Your task to perform on an android device: Open wifi settings Image 0: 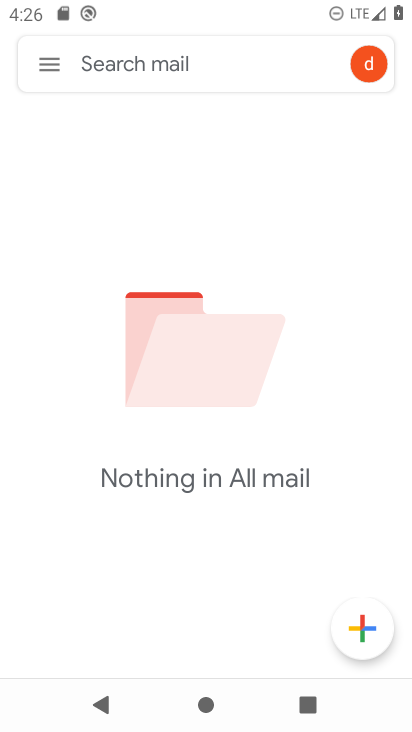
Step 0: press home button
Your task to perform on an android device: Open wifi settings Image 1: 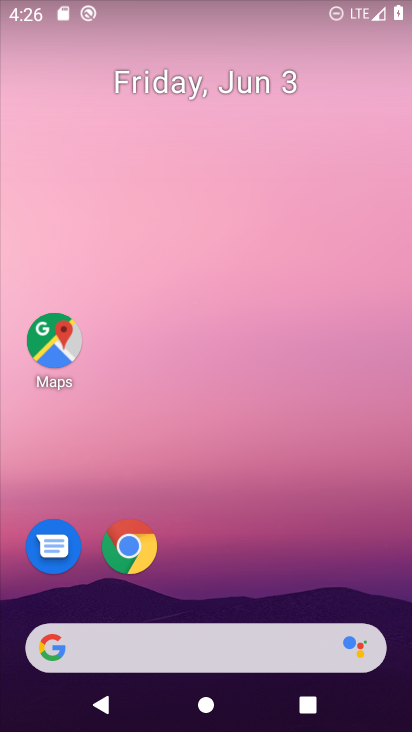
Step 1: drag from (209, 544) to (258, 16)
Your task to perform on an android device: Open wifi settings Image 2: 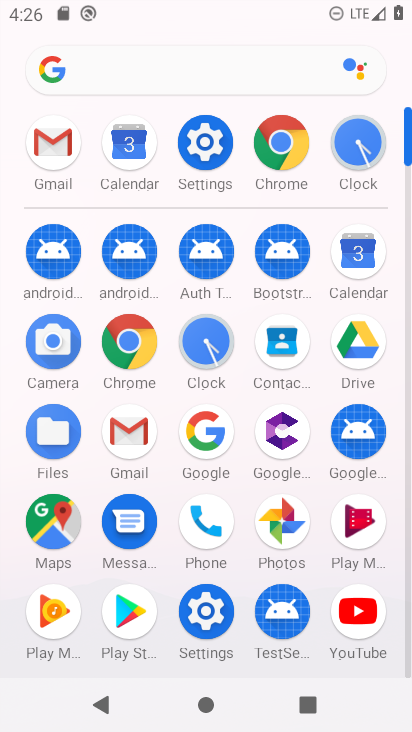
Step 2: click (215, 142)
Your task to perform on an android device: Open wifi settings Image 3: 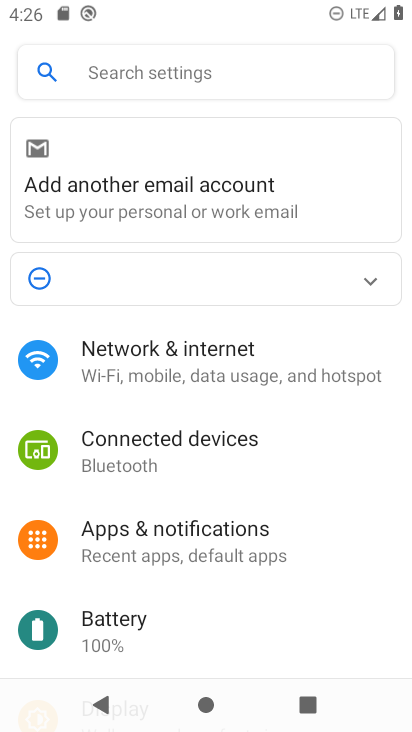
Step 3: click (208, 358)
Your task to perform on an android device: Open wifi settings Image 4: 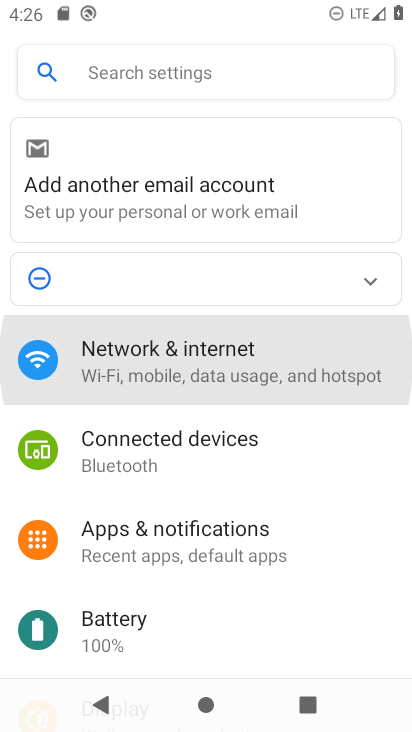
Step 4: click (195, 355)
Your task to perform on an android device: Open wifi settings Image 5: 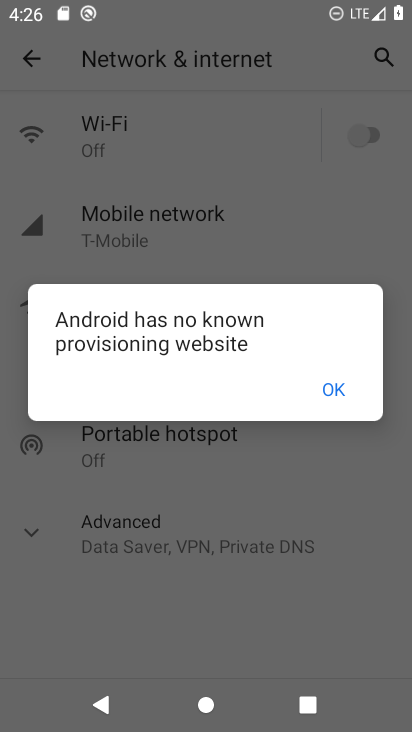
Step 5: click (332, 383)
Your task to perform on an android device: Open wifi settings Image 6: 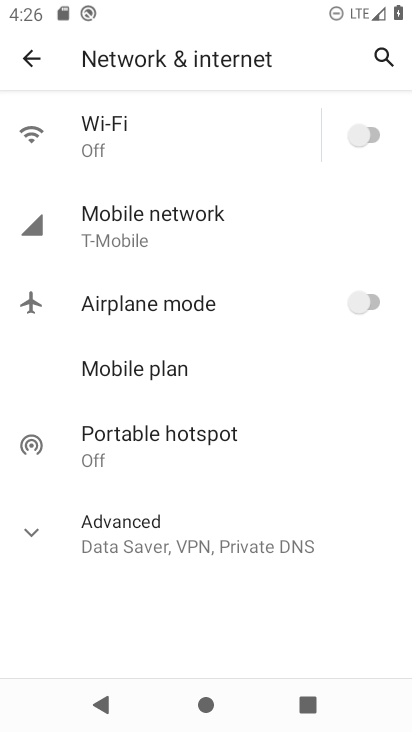
Step 6: click (122, 139)
Your task to perform on an android device: Open wifi settings Image 7: 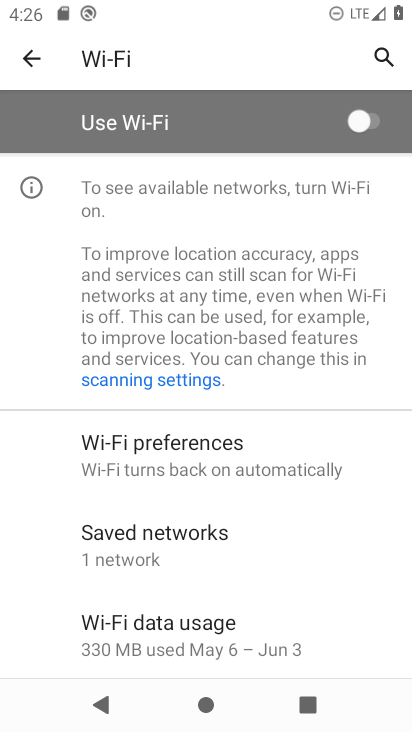
Step 7: task complete